Your task to perform on an android device: Go to Wikipedia Image 0: 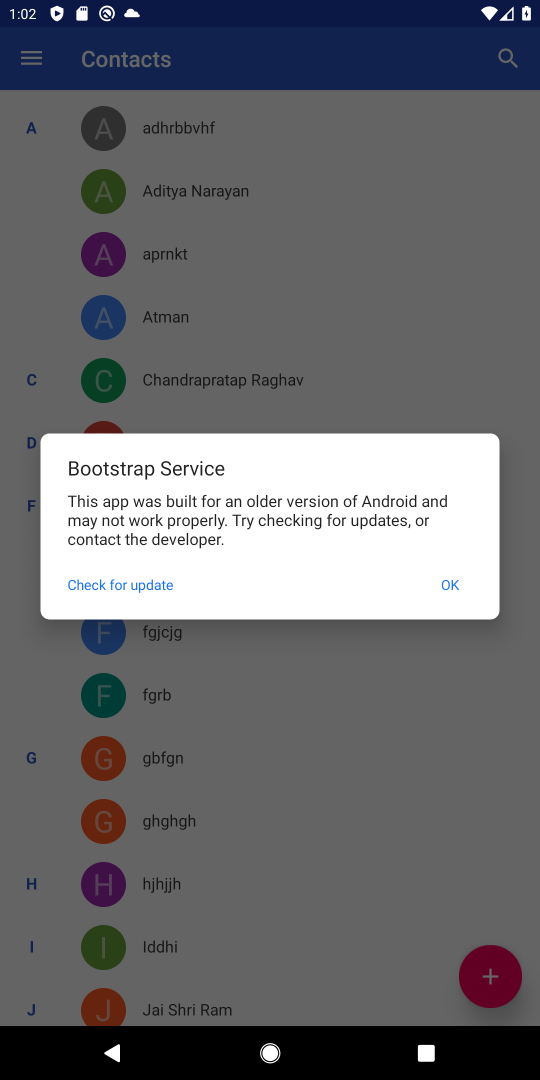
Step 0: press home button
Your task to perform on an android device: Go to Wikipedia Image 1: 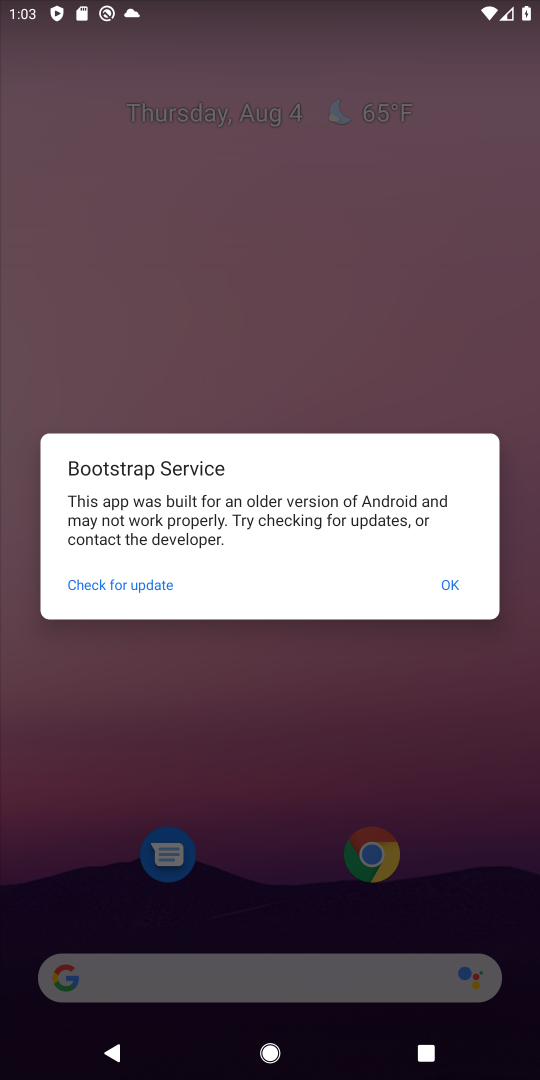
Step 1: click (439, 592)
Your task to perform on an android device: Go to Wikipedia Image 2: 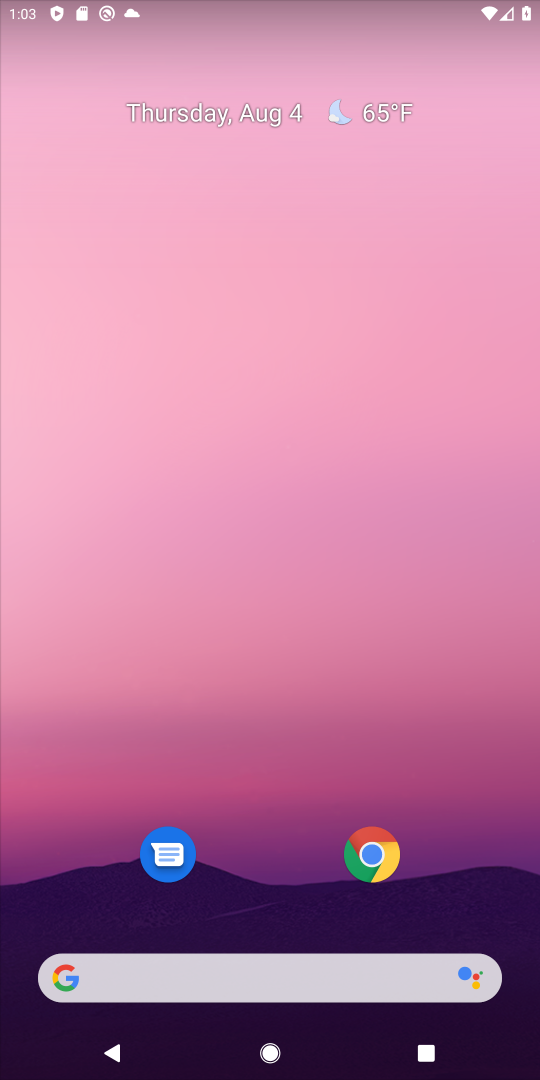
Step 2: drag from (388, 721) to (450, 179)
Your task to perform on an android device: Go to Wikipedia Image 3: 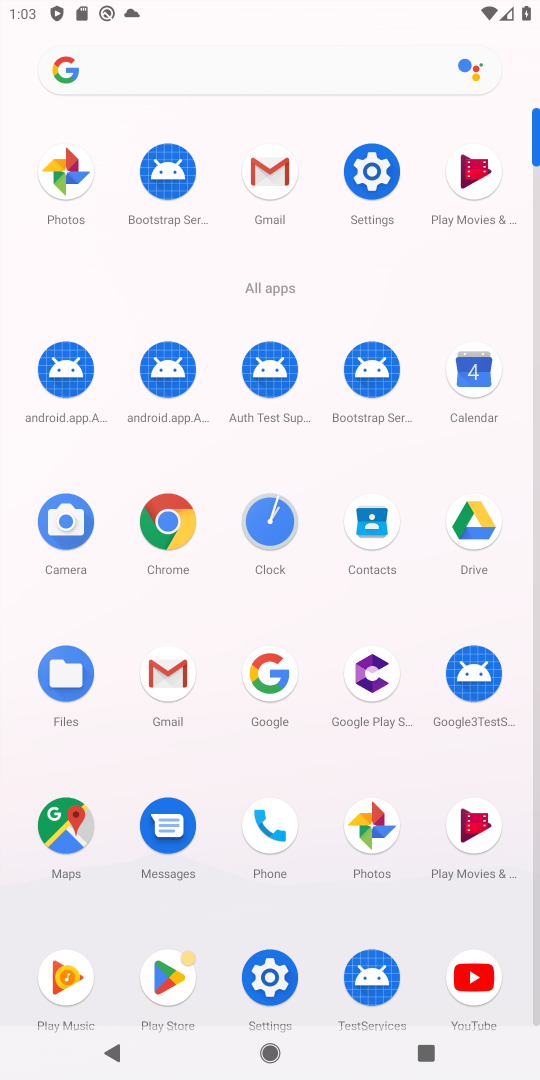
Step 3: click (176, 535)
Your task to perform on an android device: Go to Wikipedia Image 4: 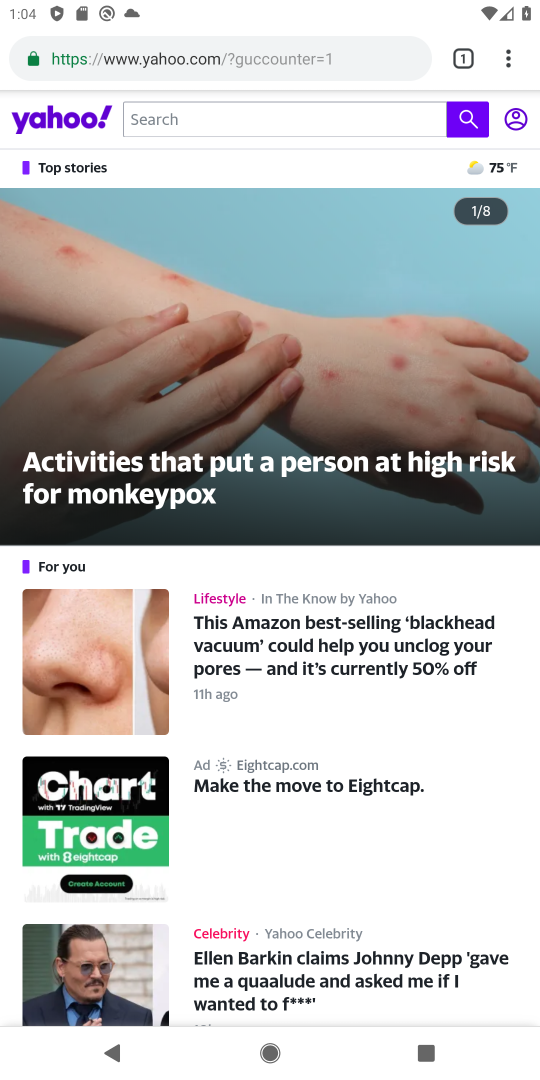
Step 4: click (164, 56)
Your task to perform on an android device: Go to Wikipedia Image 5: 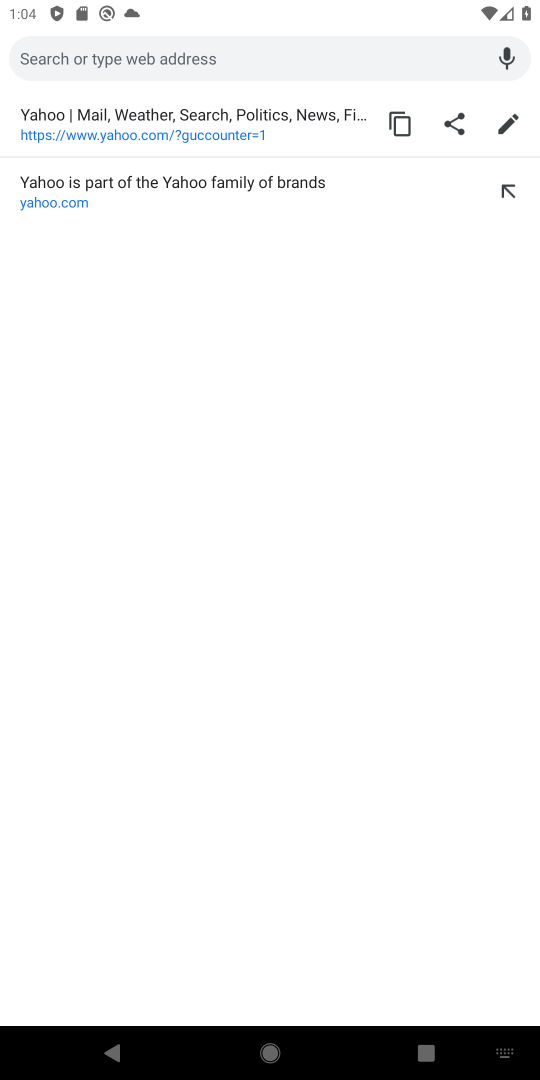
Step 5: type " Wikipedia"
Your task to perform on an android device: Go to Wikipedia Image 6: 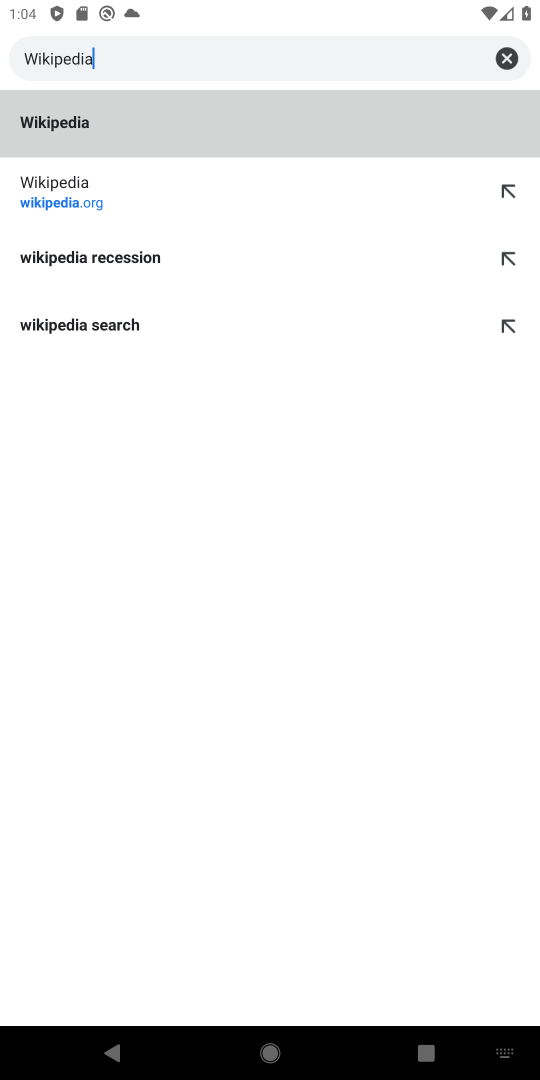
Step 6: press enter
Your task to perform on an android device: Go to Wikipedia Image 7: 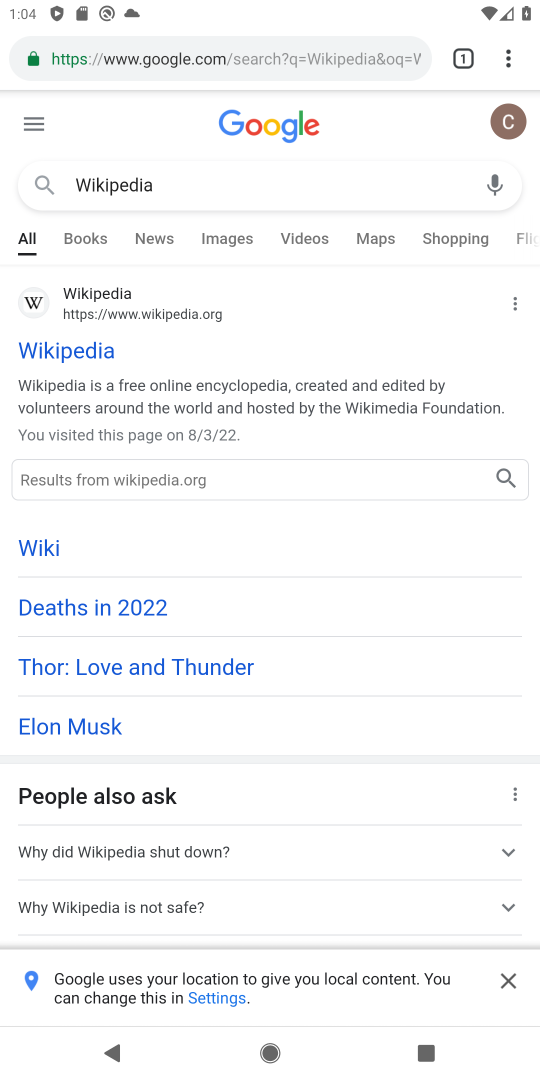
Step 7: task complete